Your task to perform on an android device: toggle javascript in the chrome app Image 0: 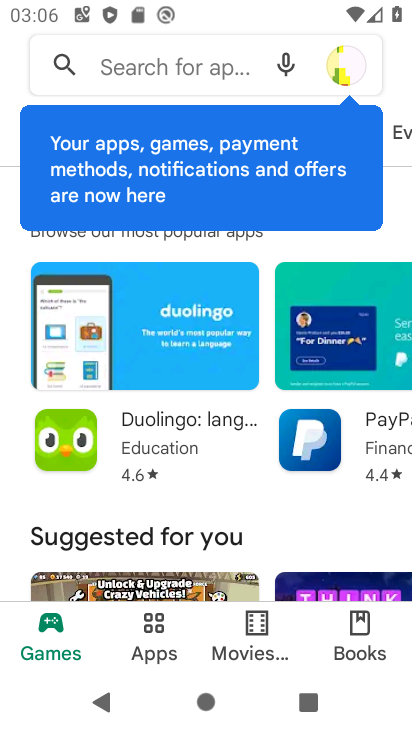
Step 0: press home button
Your task to perform on an android device: toggle javascript in the chrome app Image 1: 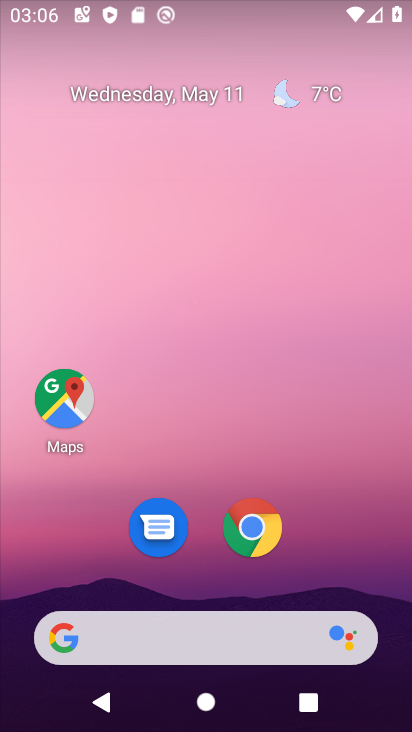
Step 1: click (254, 527)
Your task to perform on an android device: toggle javascript in the chrome app Image 2: 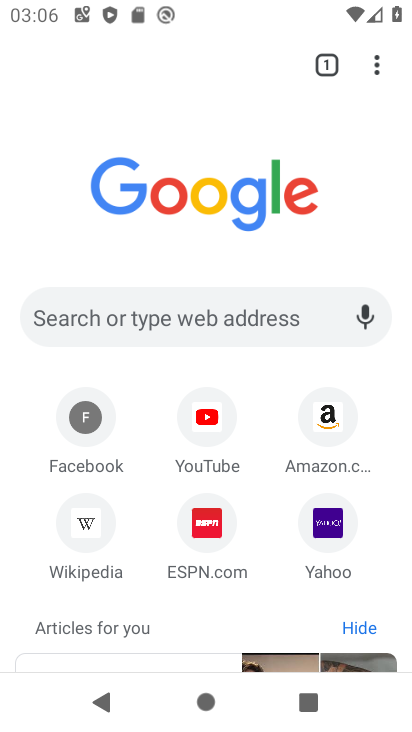
Step 2: click (382, 61)
Your task to perform on an android device: toggle javascript in the chrome app Image 3: 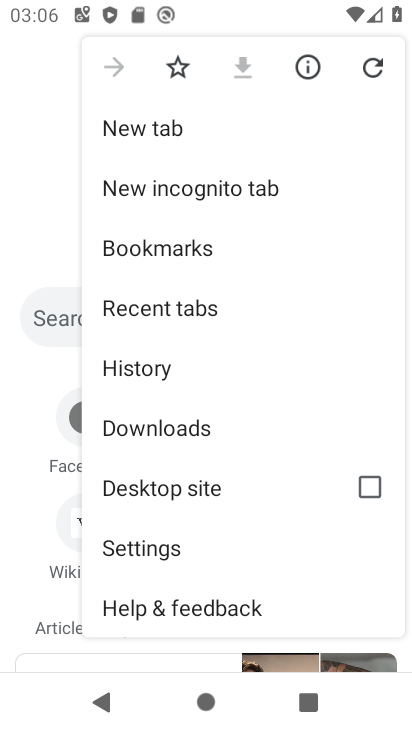
Step 3: click (157, 554)
Your task to perform on an android device: toggle javascript in the chrome app Image 4: 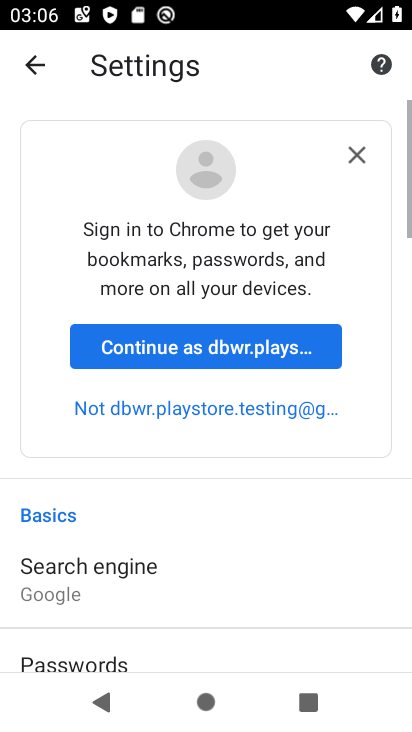
Step 4: drag from (205, 599) to (224, 154)
Your task to perform on an android device: toggle javascript in the chrome app Image 5: 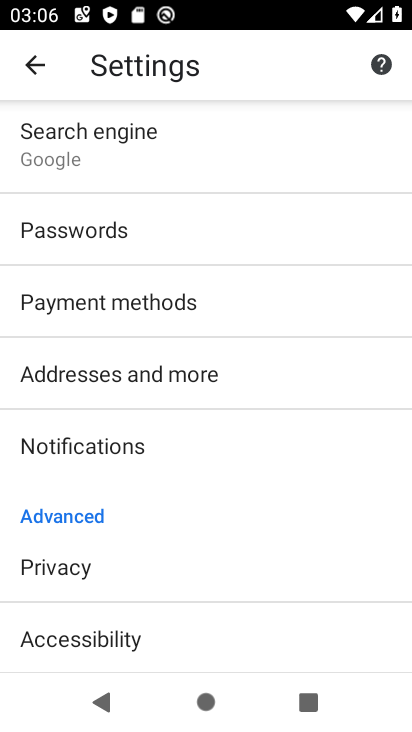
Step 5: drag from (199, 526) to (205, 238)
Your task to perform on an android device: toggle javascript in the chrome app Image 6: 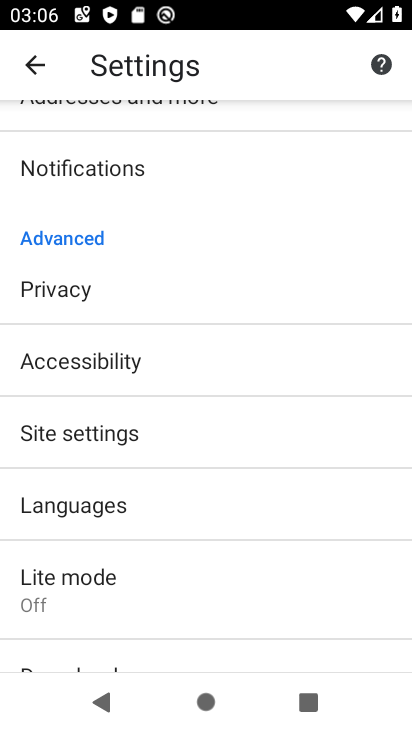
Step 6: click (130, 438)
Your task to perform on an android device: toggle javascript in the chrome app Image 7: 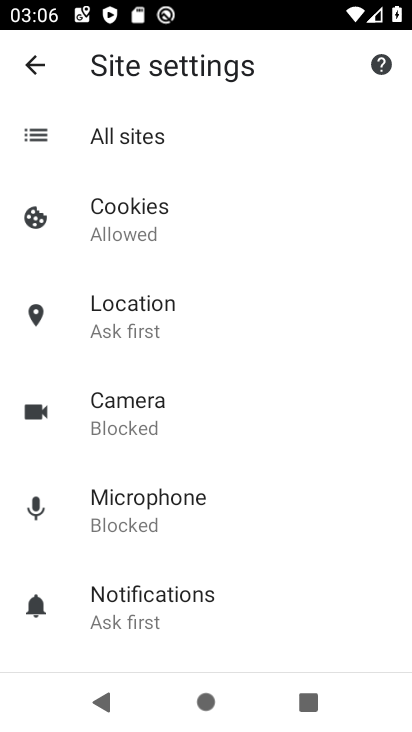
Step 7: drag from (294, 525) to (306, 234)
Your task to perform on an android device: toggle javascript in the chrome app Image 8: 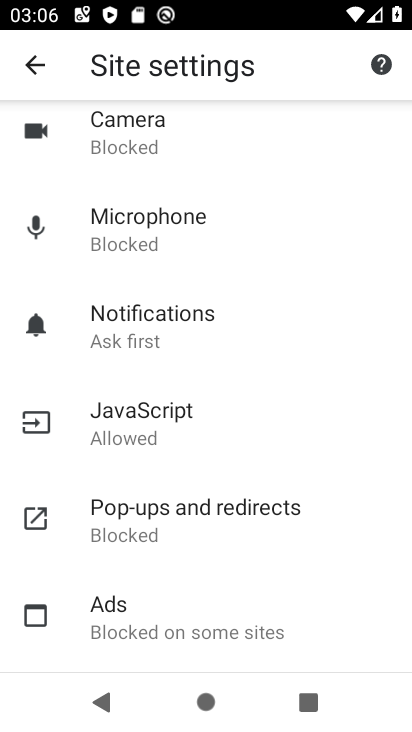
Step 8: click (142, 425)
Your task to perform on an android device: toggle javascript in the chrome app Image 9: 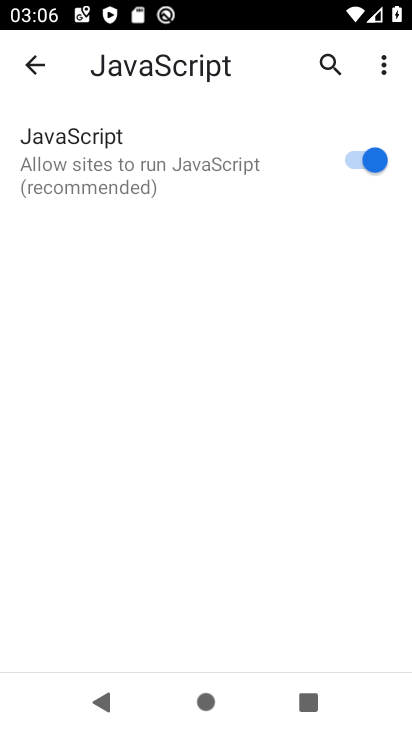
Step 9: click (367, 162)
Your task to perform on an android device: toggle javascript in the chrome app Image 10: 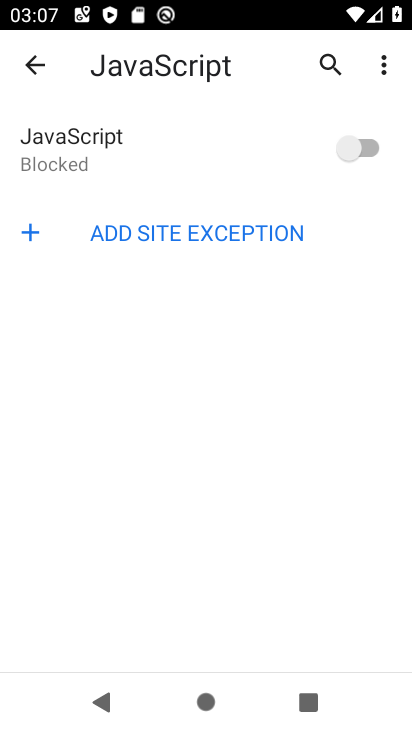
Step 10: task complete